Your task to perform on an android device: Go to Android settings Image 0: 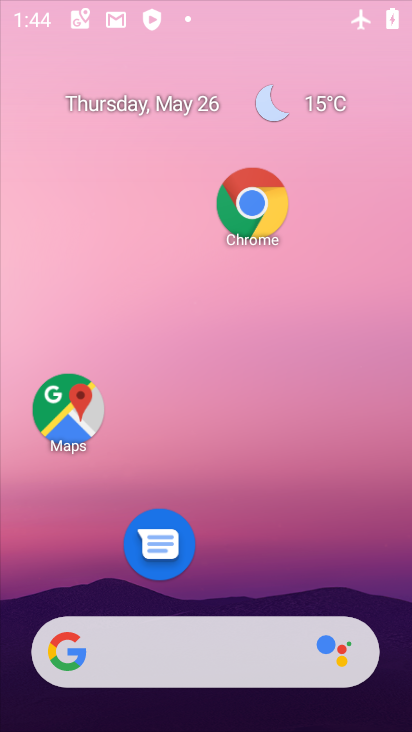
Step 0: click (241, 643)
Your task to perform on an android device: Go to Android settings Image 1: 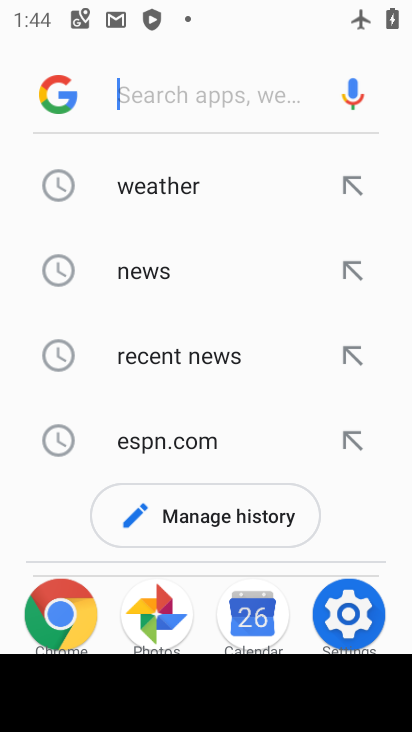
Step 1: press home button
Your task to perform on an android device: Go to Android settings Image 2: 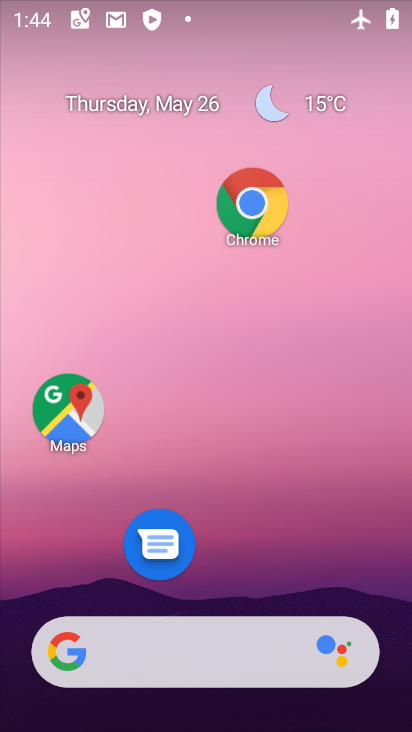
Step 2: drag from (292, 708) to (279, 83)
Your task to perform on an android device: Go to Android settings Image 3: 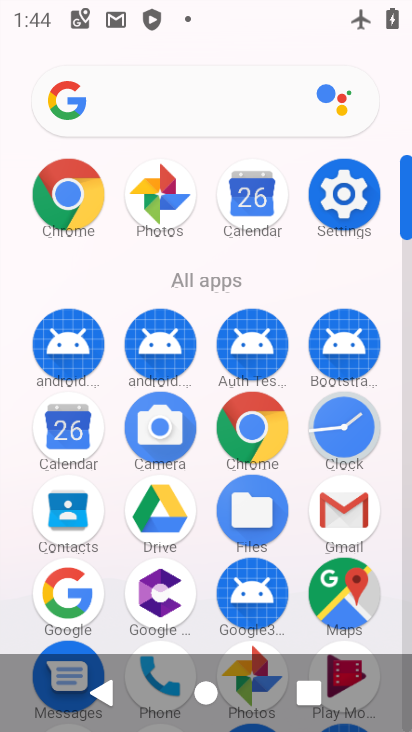
Step 3: click (363, 183)
Your task to perform on an android device: Go to Android settings Image 4: 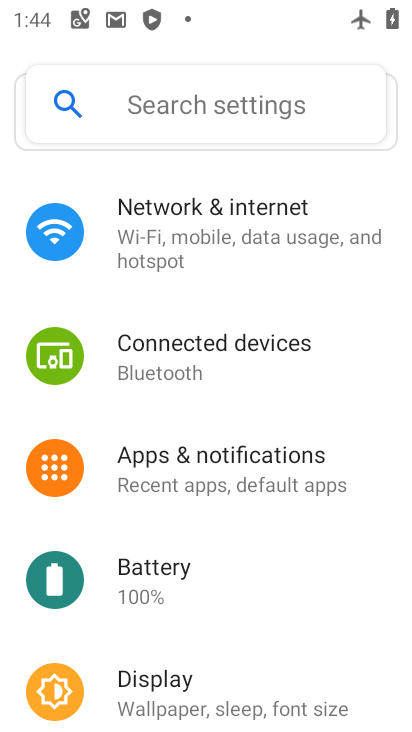
Step 4: drag from (252, 651) to (265, 23)
Your task to perform on an android device: Go to Android settings Image 5: 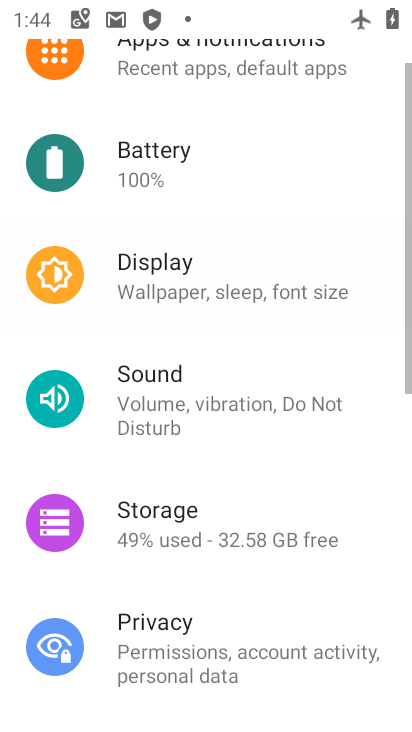
Step 5: drag from (264, 548) to (278, 130)
Your task to perform on an android device: Go to Android settings Image 6: 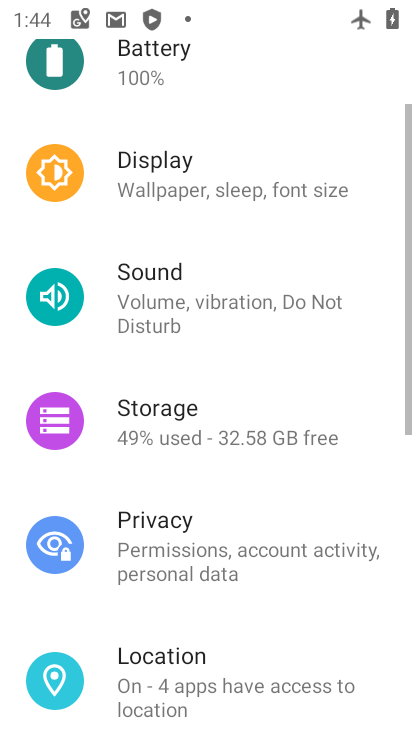
Step 6: drag from (237, 589) to (244, 70)
Your task to perform on an android device: Go to Android settings Image 7: 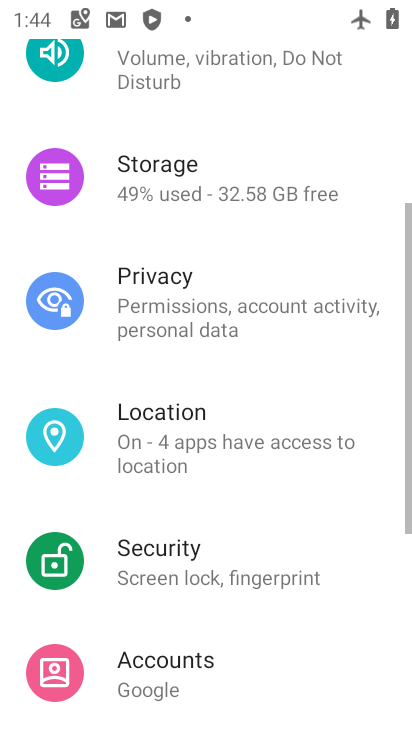
Step 7: drag from (216, 589) to (293, 64)
Your task to perform on an android device: Go to Android settings Image 8: 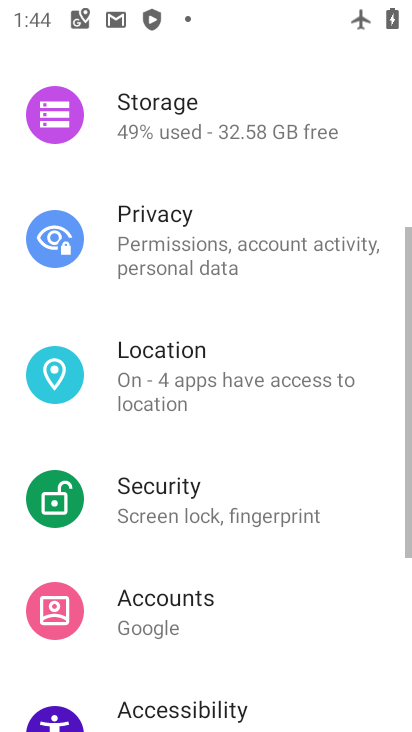
Step 8: drag from (249, 418) to (249, 223)
Your task to perform on an android device: Go to Android settings Image 9: 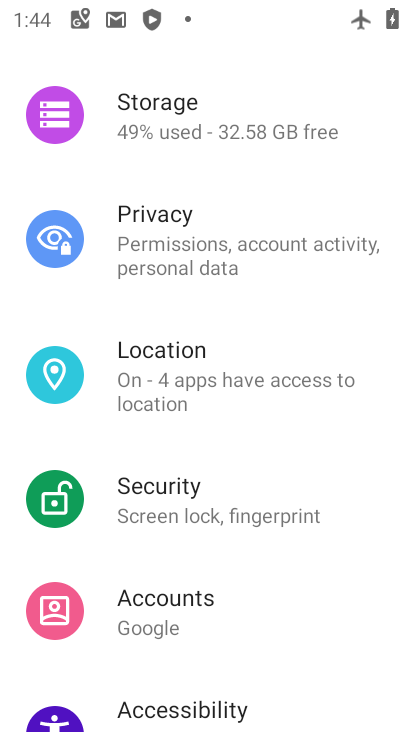
Step 9: drag from (238, 519) to (258, 130)
Your task to perform on an android device: Go to Android settings Image 10: 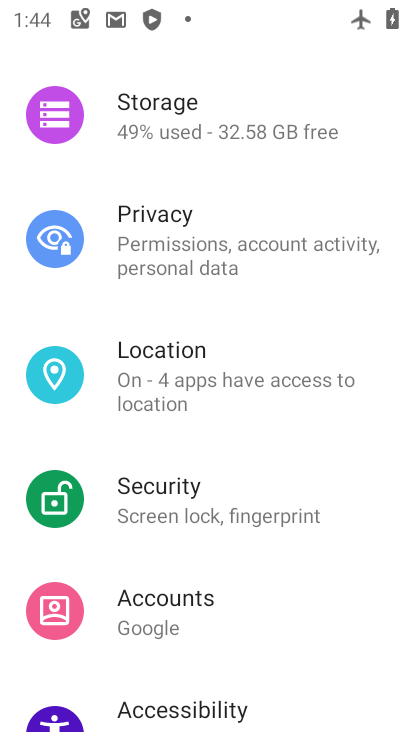
Step 10: drag from (263, 638) to (275, 207)
Your task to perform on an android device: Go to Android settings Image 11: 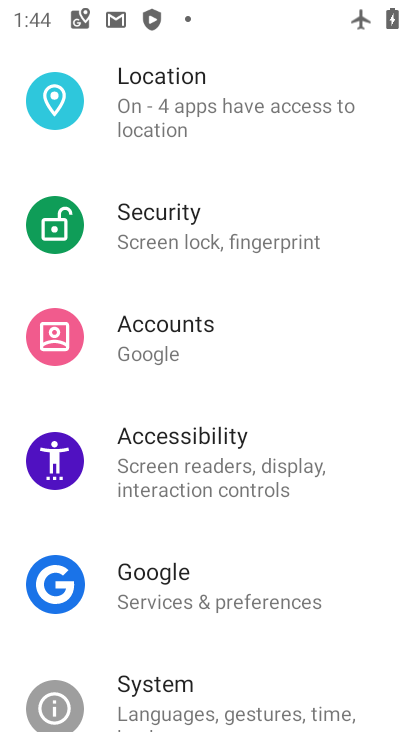
Step 11: drag from (257, 680) to (267, 189)
Your task to perform on an android device: Go to Android settings Image 12: 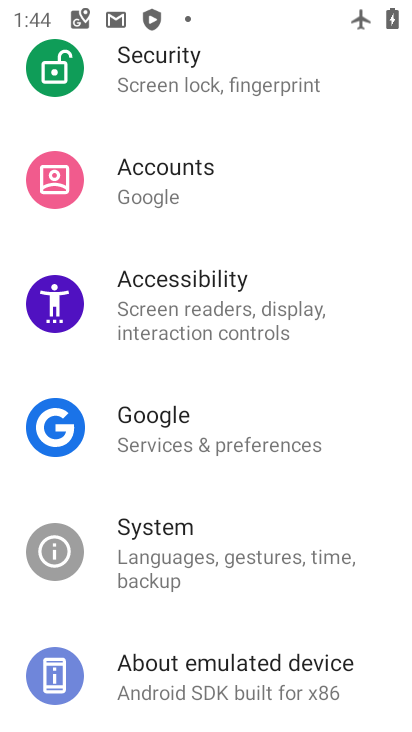
Step 12: click (279, 674)
Your task to perform on an android device: Go to Android settings Image 13: 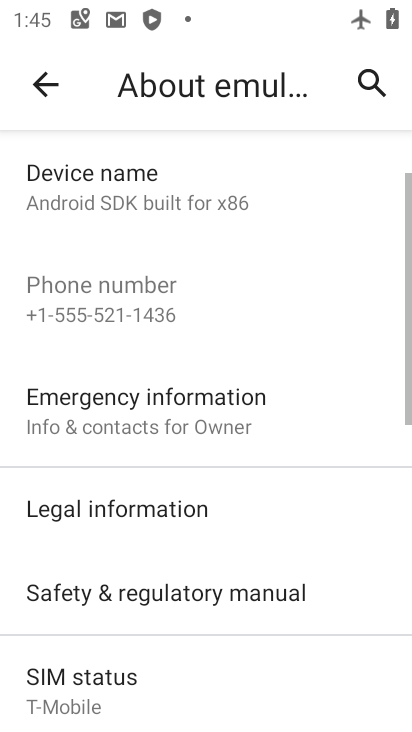
Step 13: task complete